Your task to perform on an android device: star an email in the gmail app Image 0: 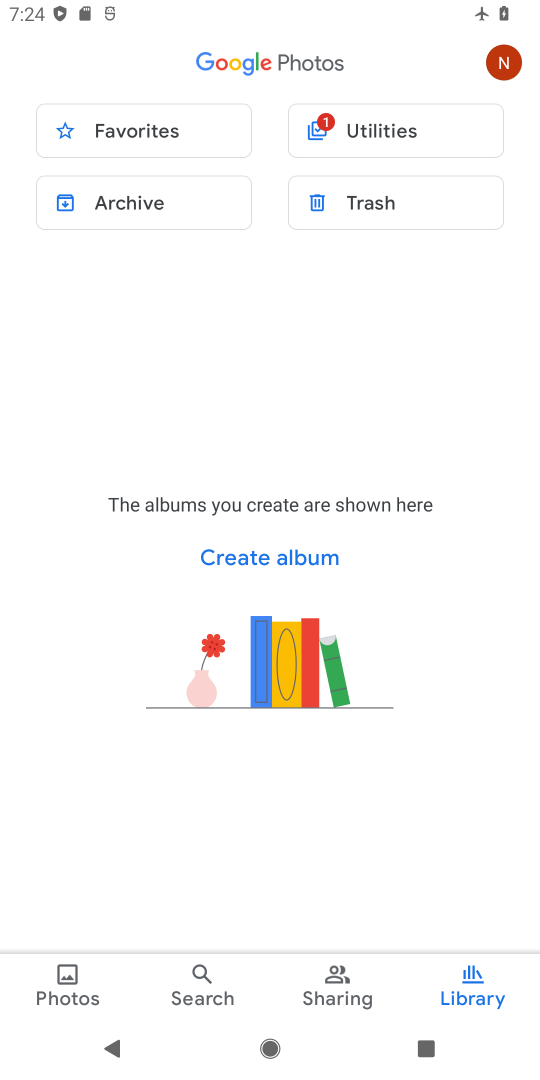
Step 0: press home button
Your task to perform on an android device: star an email in the gmail app Image 1: 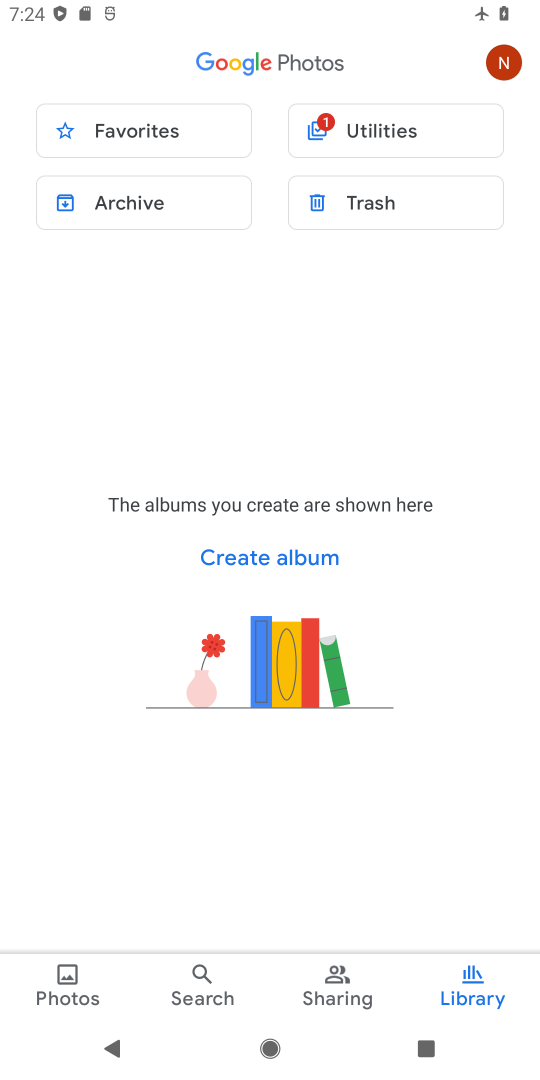
Step 1: press home button
Your task to perform on an android device: star an email in the gmail app Image 2: 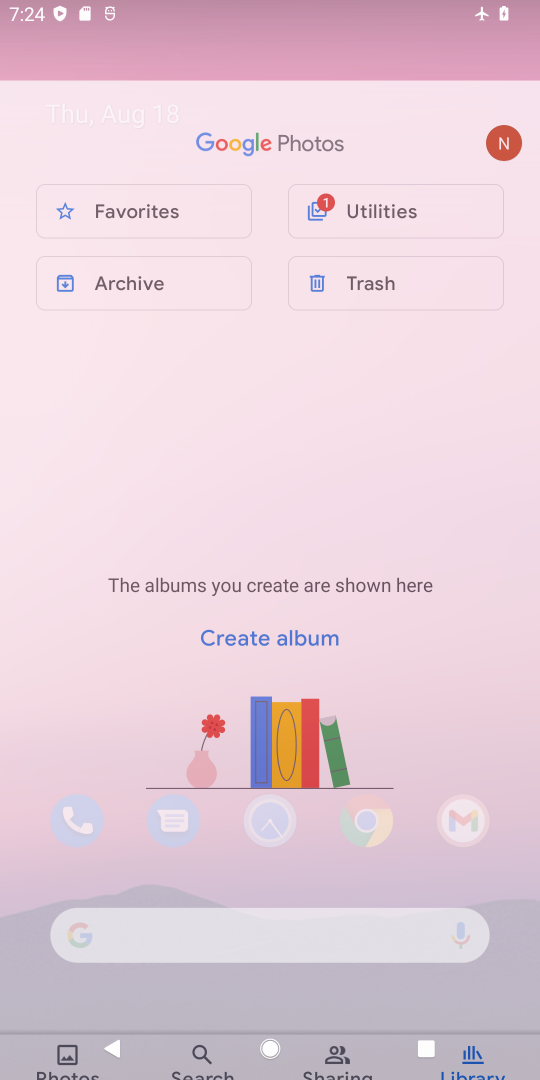
Step 2: press home button
Your task to perform on an android device: star an email in the gmail app Image 3: 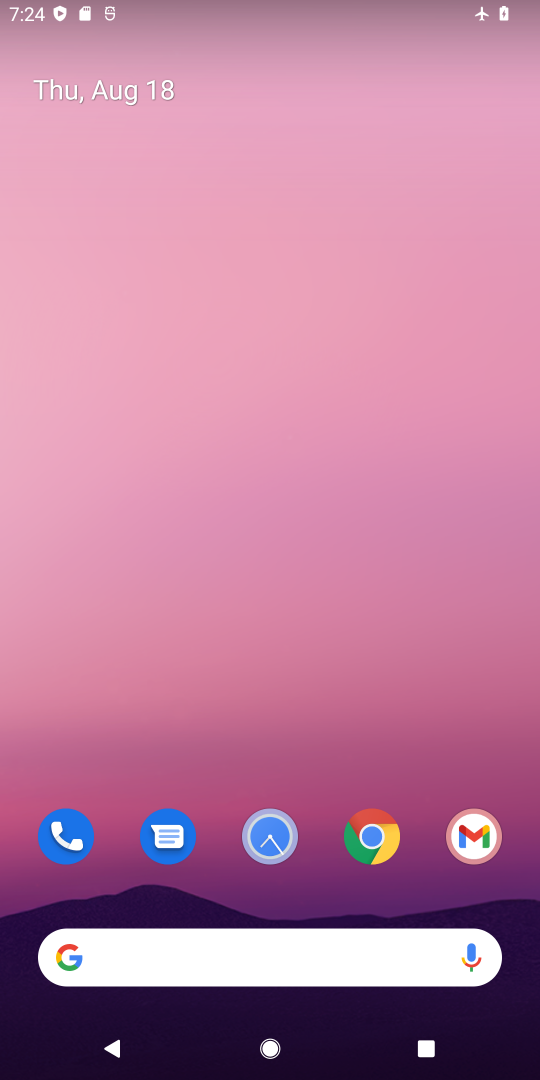
Step 3: drag from (282, 790) to (315, 6)
Your task to perform on an android device: star an email in the gmail app Image 4: 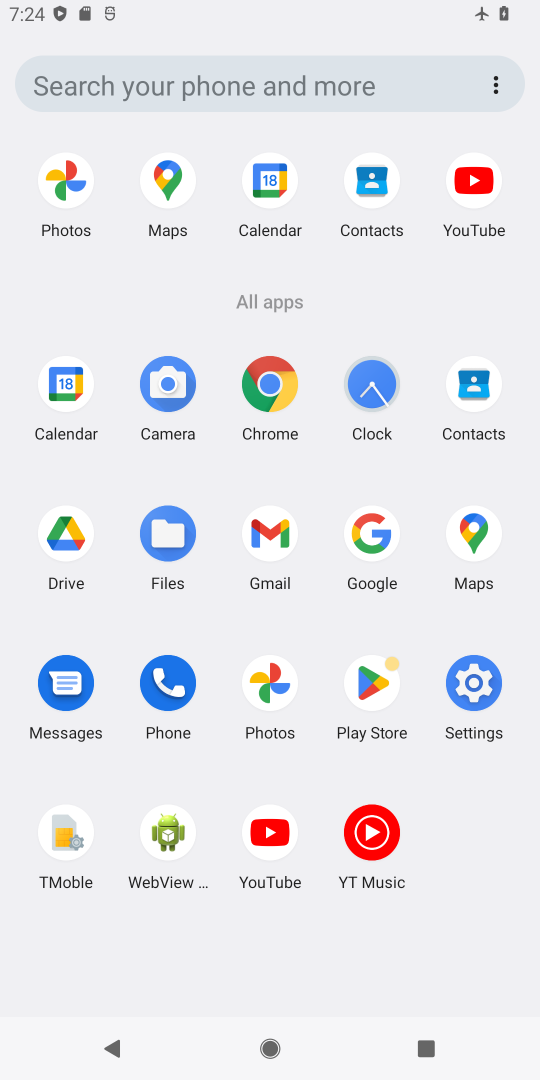
Step 4: click (282, 540)
Your task to perform on an android device: star an email in the gmail app Image 5: 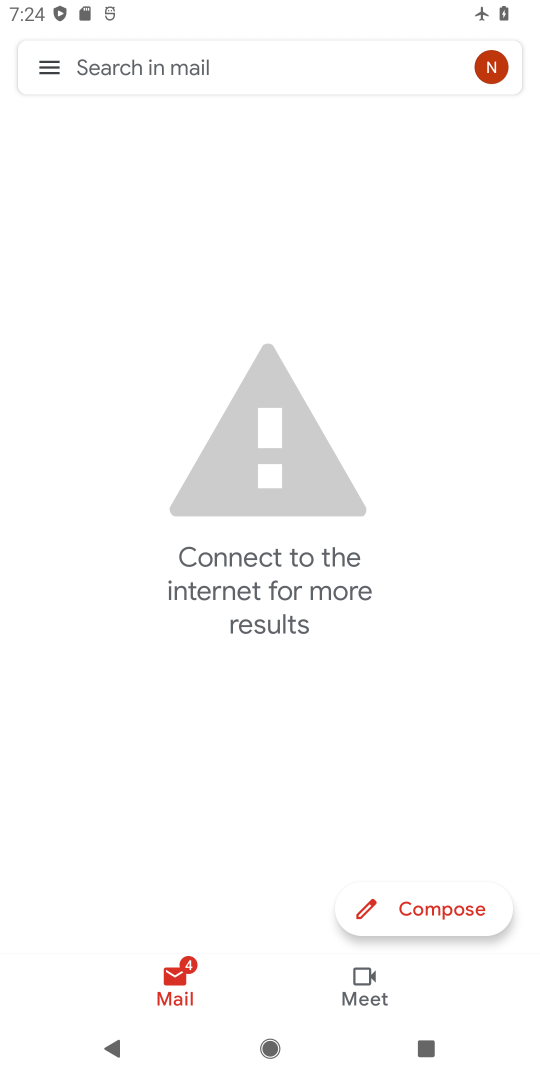
Step 5: click (54, 70)
Your task to perform on an android device: star an email in the gmail app Image 6: 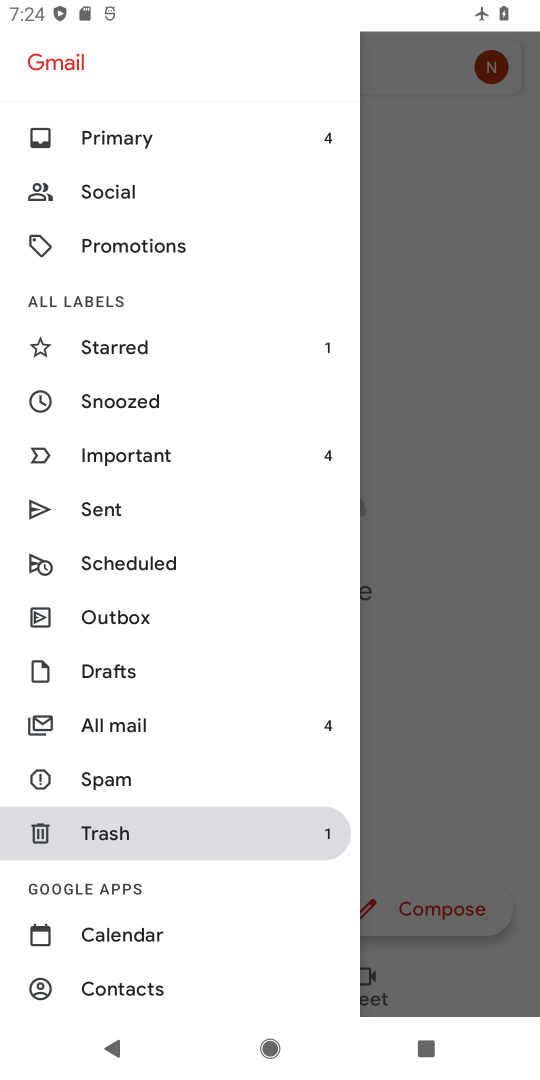
Step 6: click (166, 731)
Your task to perform on an android device: star an email in the gmail app Image 7: 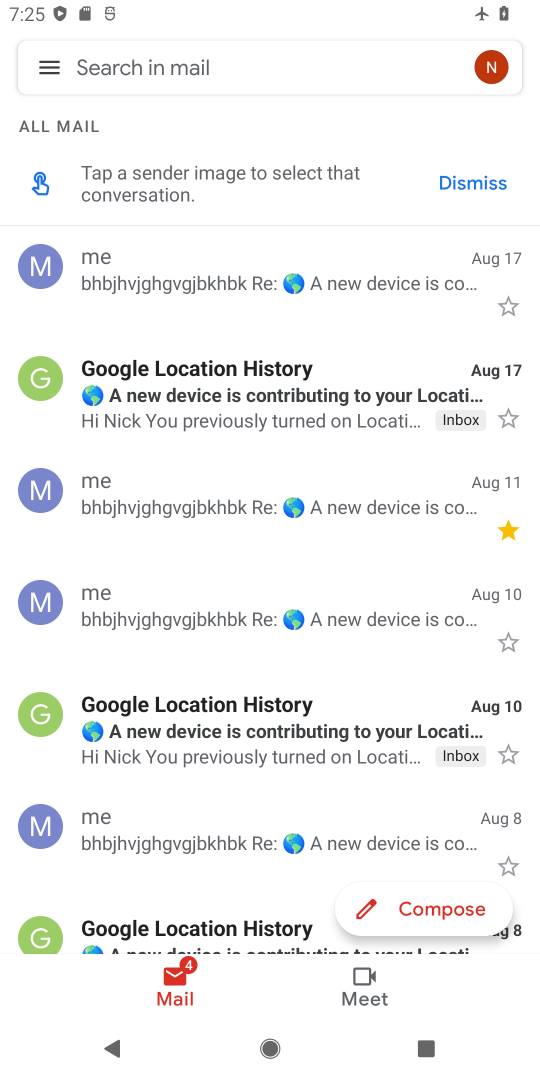
Step 7: drag from (188, 268) to (201, 947)
Your task to perform on an android device: star an email in the gmail app Image 8: 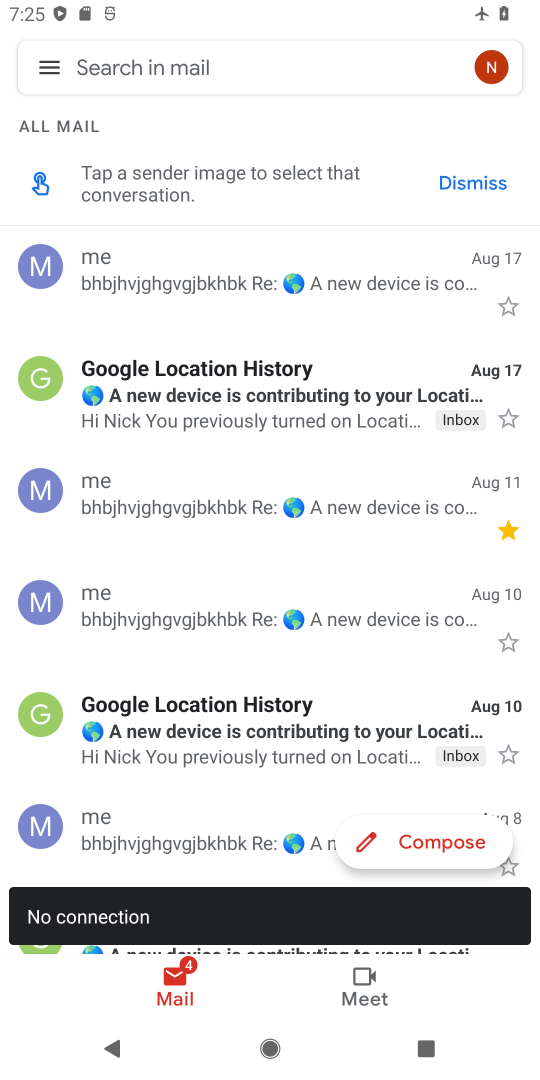
Step 8: click (514, 416)
Your task to perform on an android device: star an email in the gmail app Image 9: 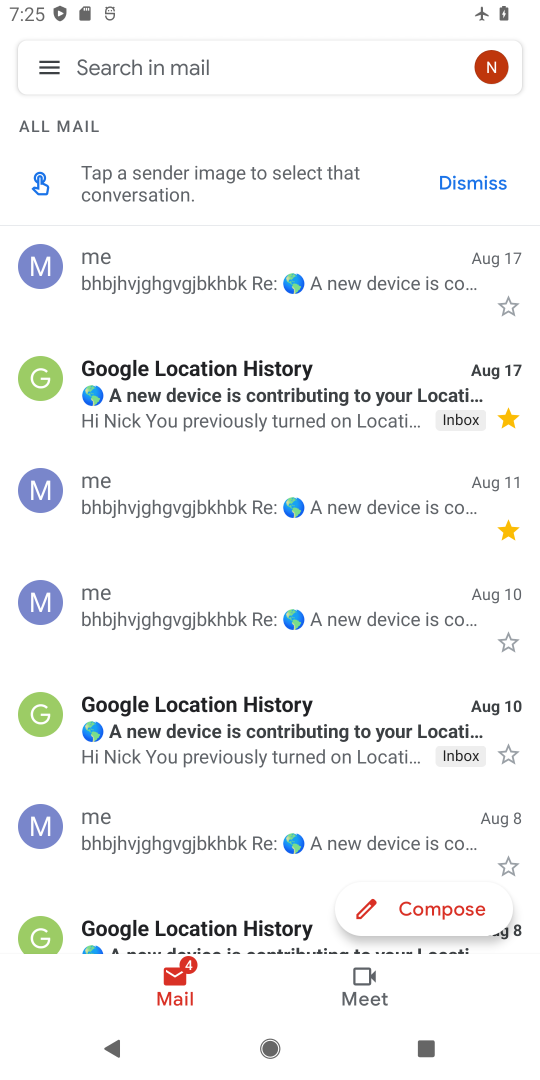
Step 9: task complete